Your task to perform on an android device: Open Amazon Image 0: 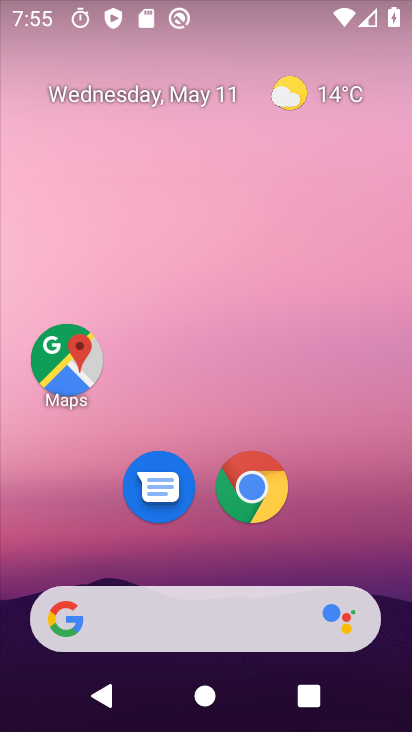
Step 0: click (247, 490)
Your task to perform on an android device: Open Amazon Image 1: 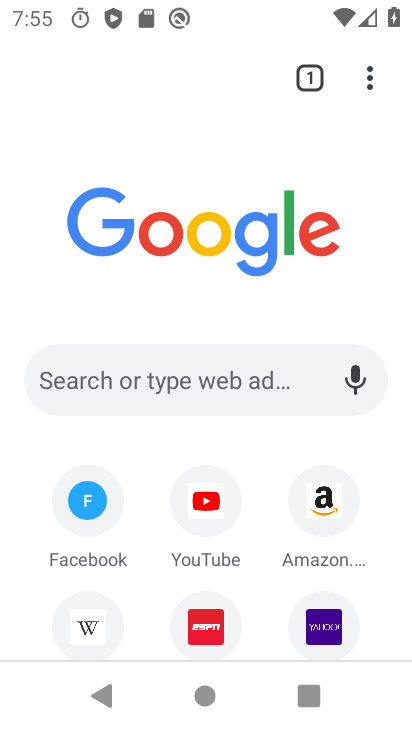
Step 1: click (253, 376)
Your task to perform on an android device: Open Amazon Image 2: 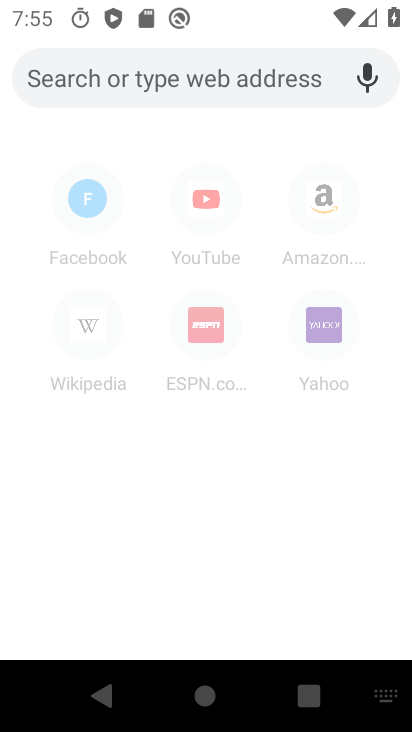
Step 2: type "Amazon"
Your task to perform on an android device: Open Amazon Image 3: 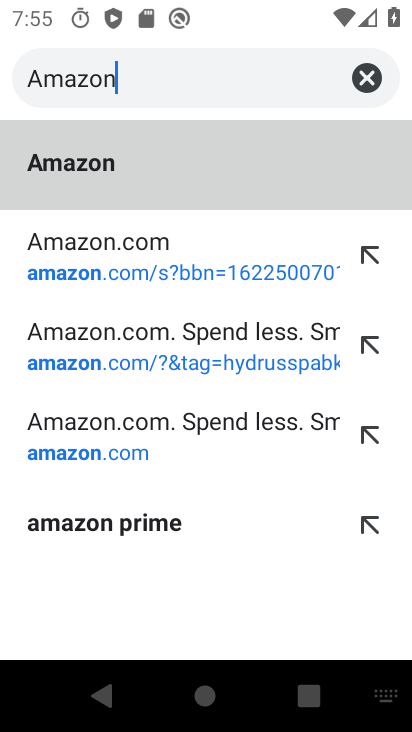
Step 3: click (85, 167)
Your task to perform on an android device: Open Amazon Image 4: 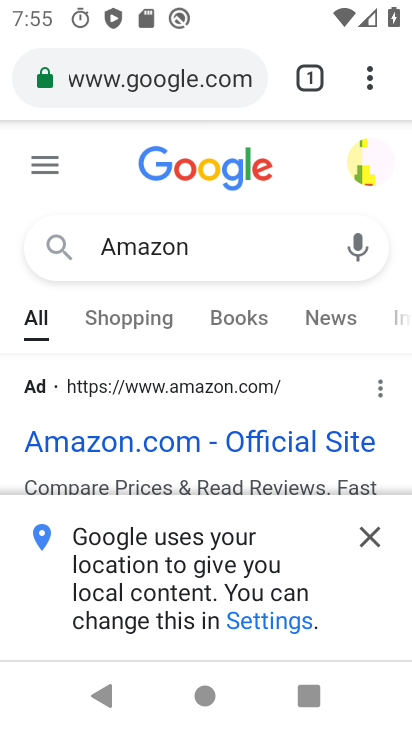
Step 4: click (233, 444)
Your task to perform on an android device: Open Amazon Image 5: 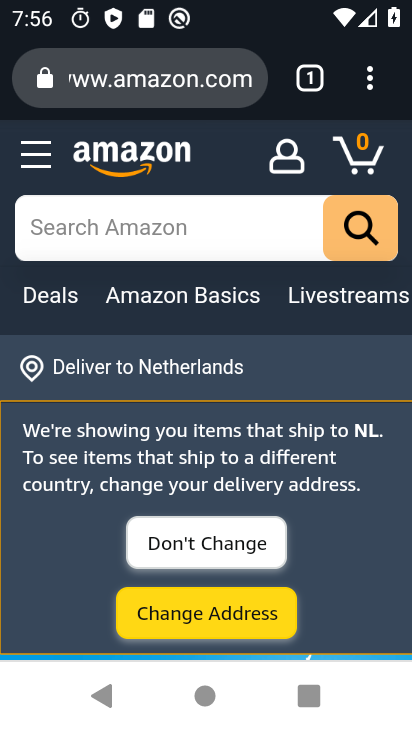
Step 5: task complete